Your task to perform on an android device: find which apps use the phone's location Image 0: 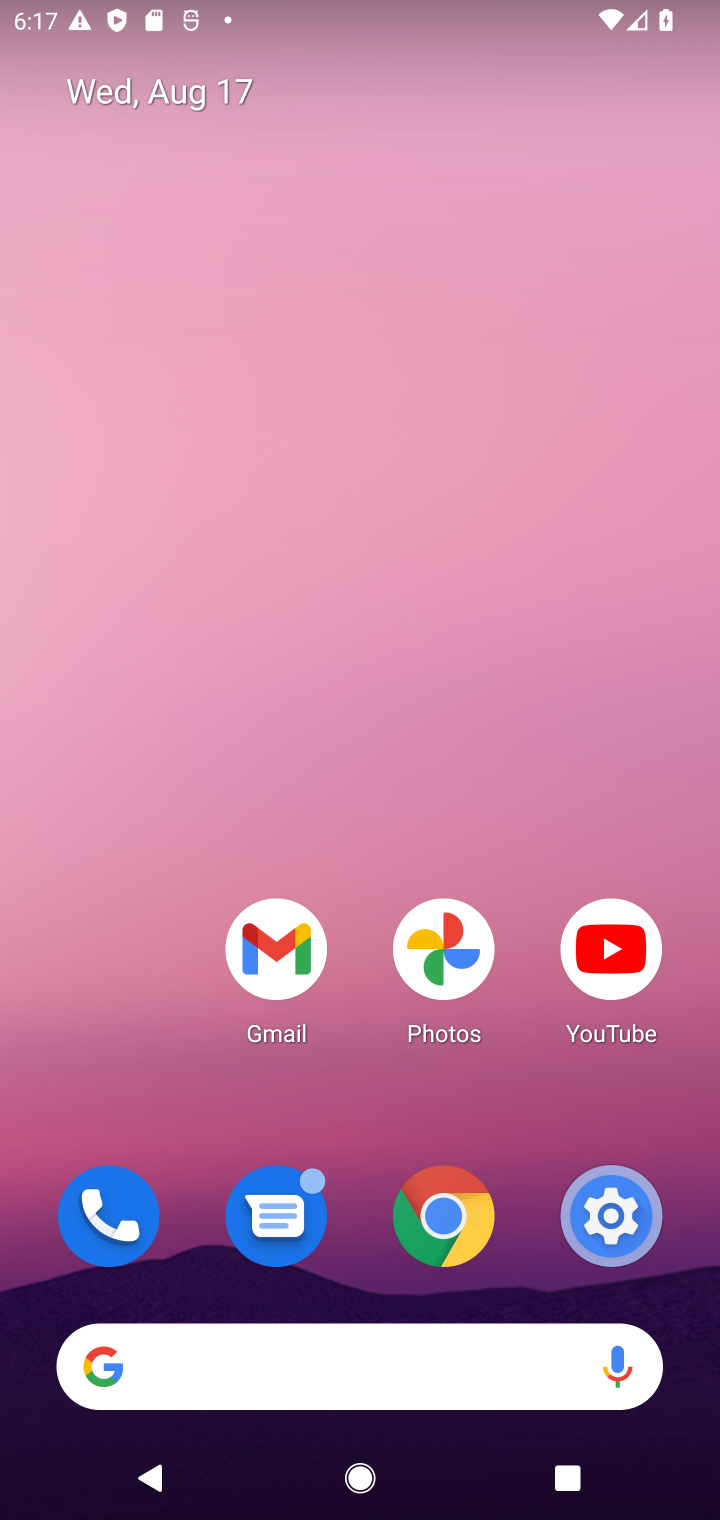
Step 0: drag from (415, 1063) to (411, 18)
Your task to perform on an android device: find which apps use the phone's location Image 1: 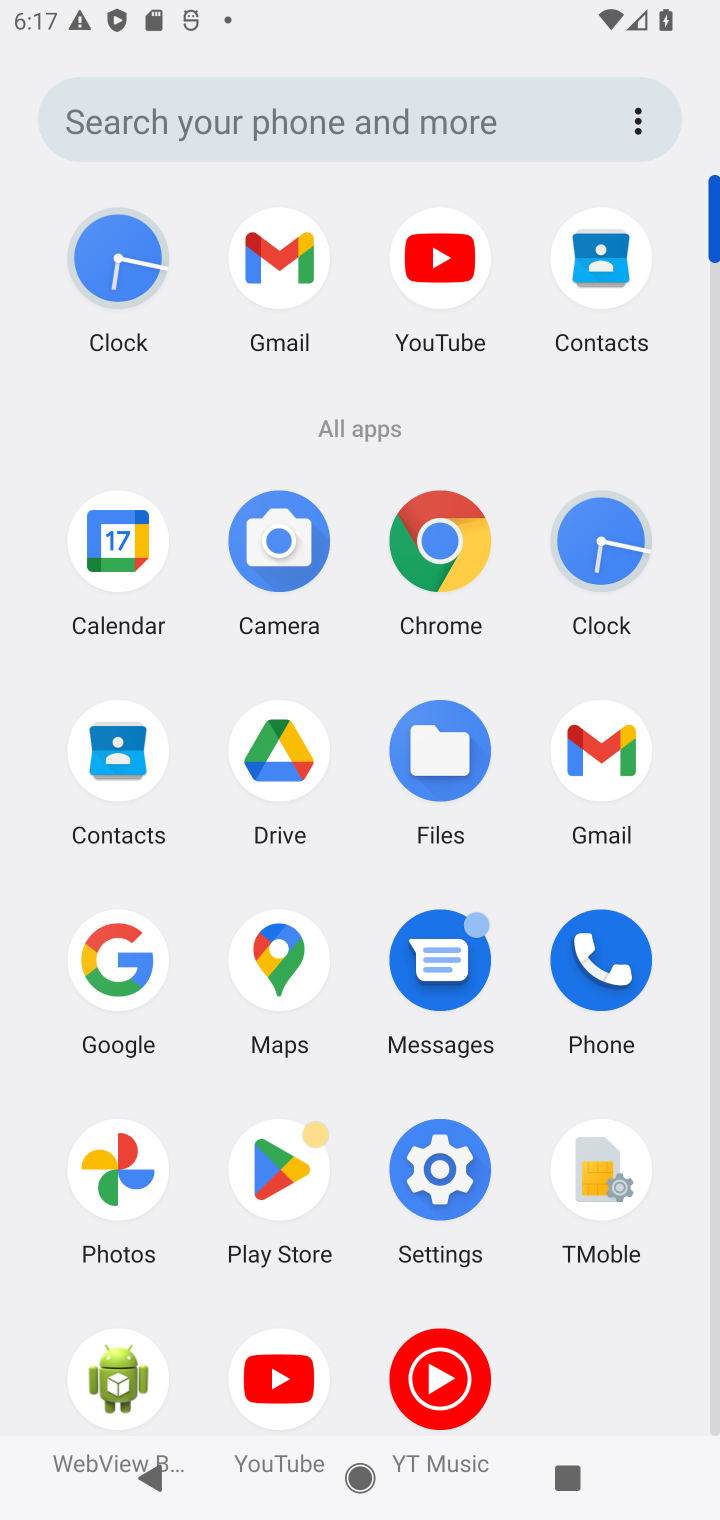
Step 1: click (602, 966)
Your task to perform on an android device: find which apps use the phone's location Image 2: 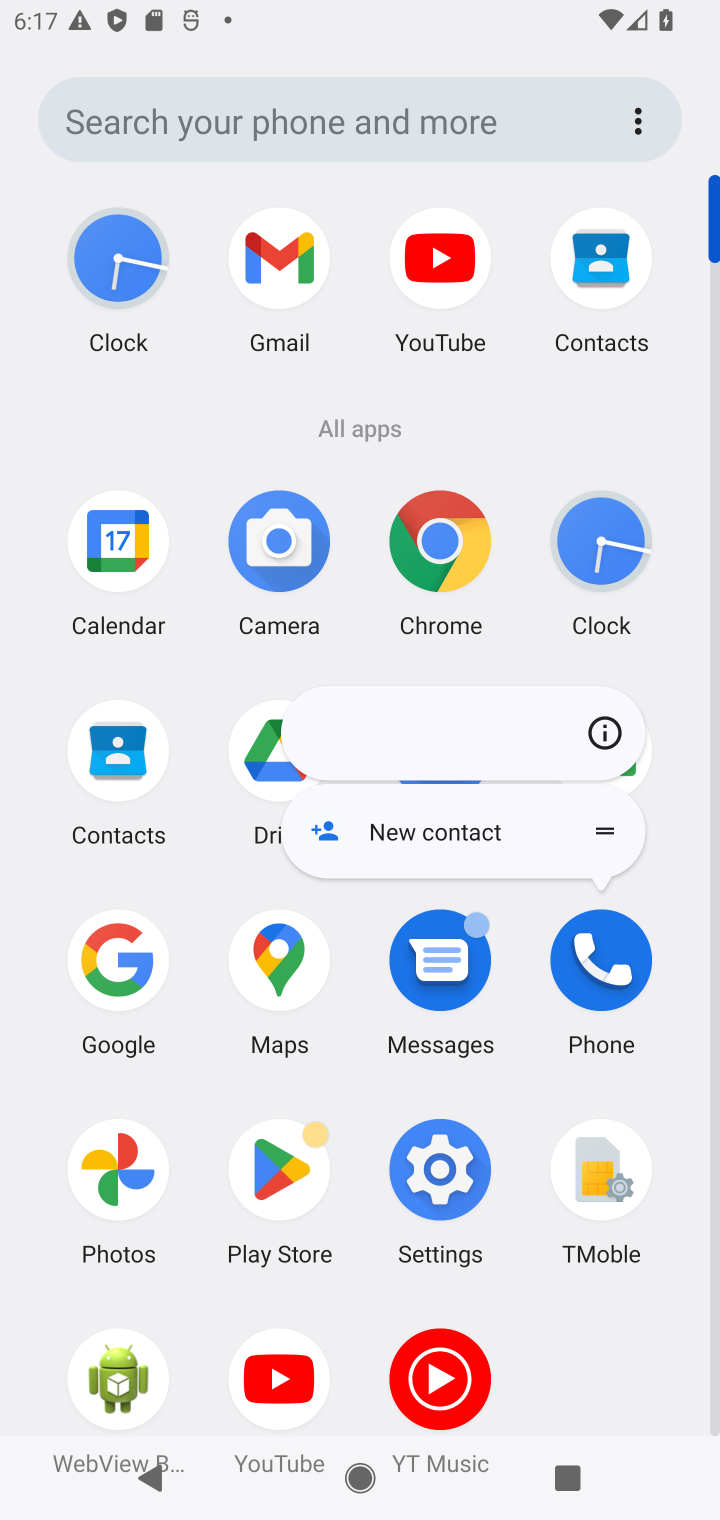
Step 2: click (607, 718)
Your task to perform on an android device: find which apps use the phone's location Image 3: 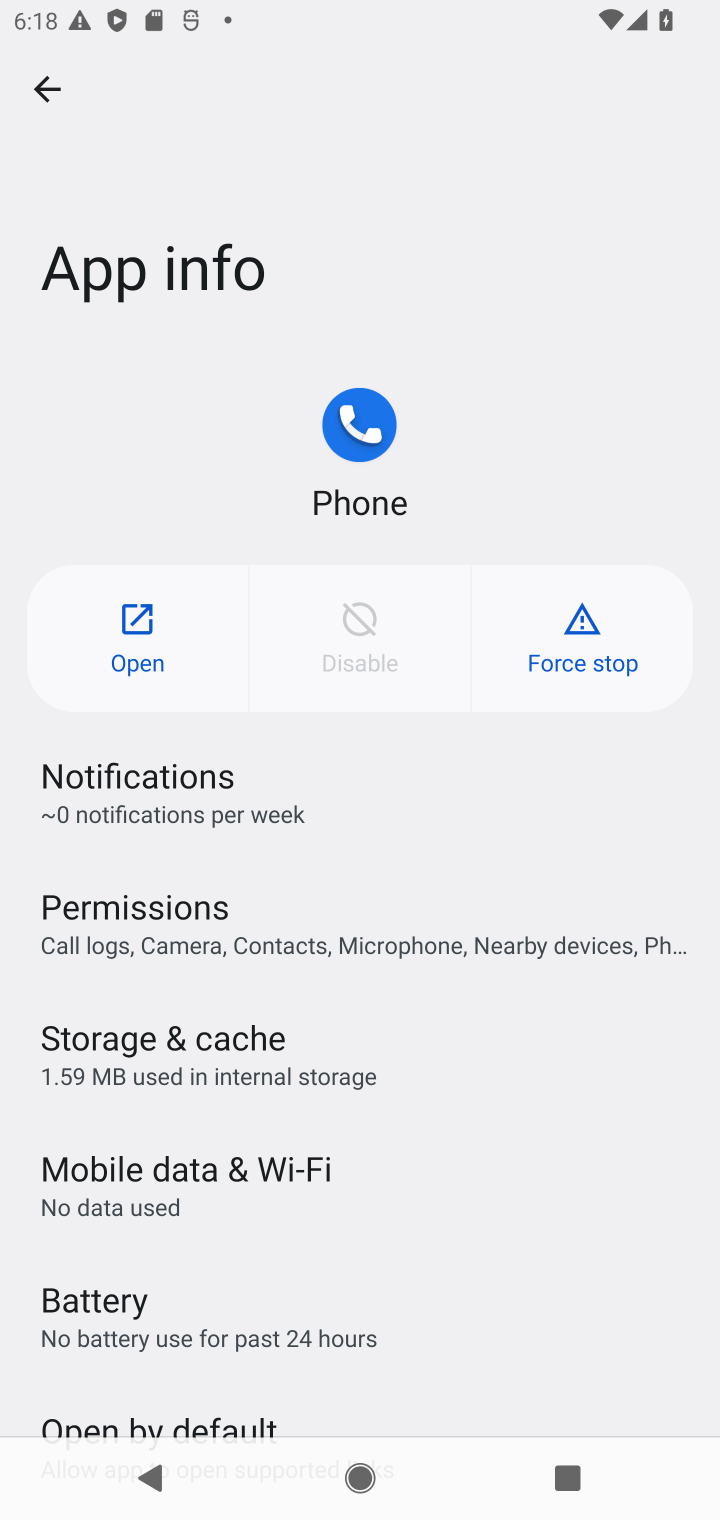
Step 3: drag from (479, 1352) to (583, 343)
Your task to perform on an android device: find which apps use the phone's location Image 4: 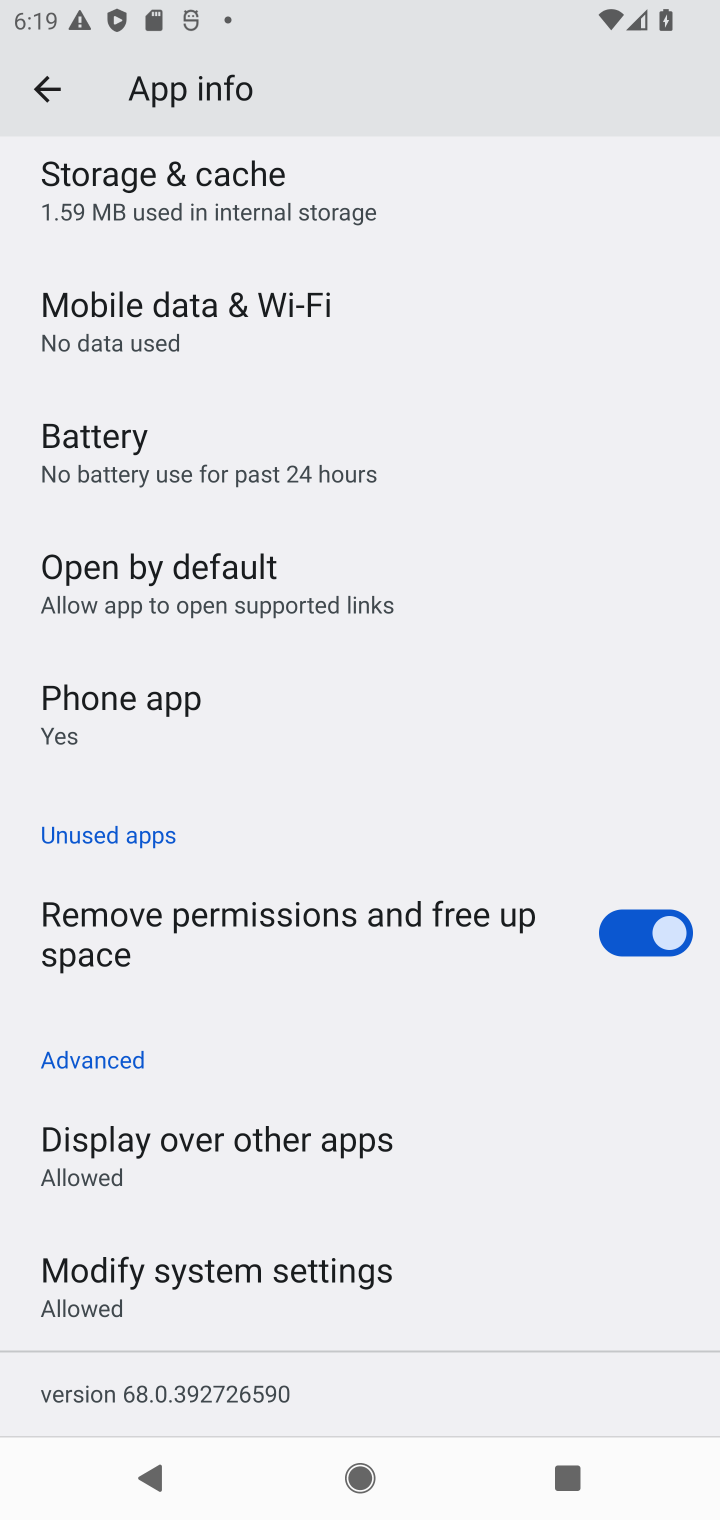
Step 4: drag from (336, 1176) to (282, 183)
Your task to perform on an android device: find which apps use the phone's location Image 5: 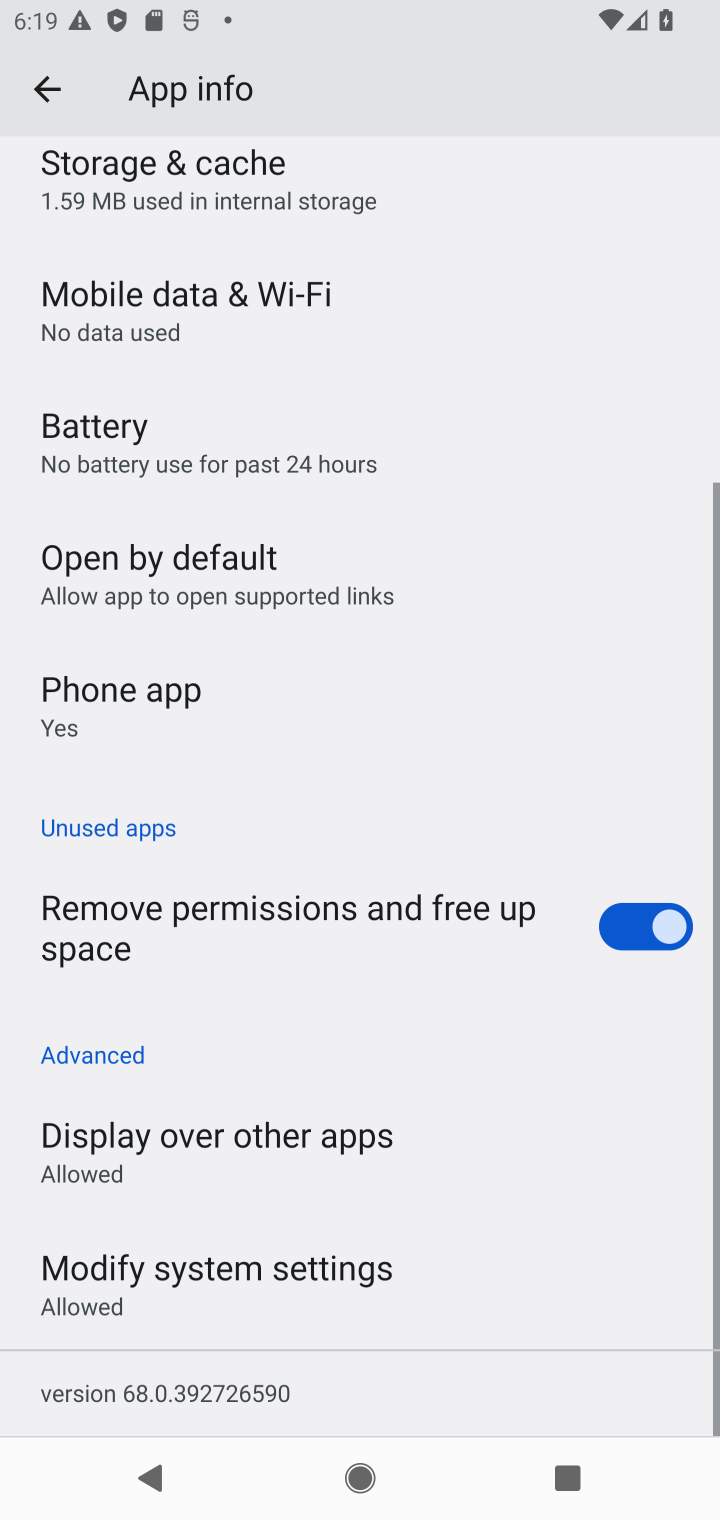
Step 5: drag from (216, 506) to (173, 1316)
Your task to perform on an android device: find which apps use the phone's location Image 6: 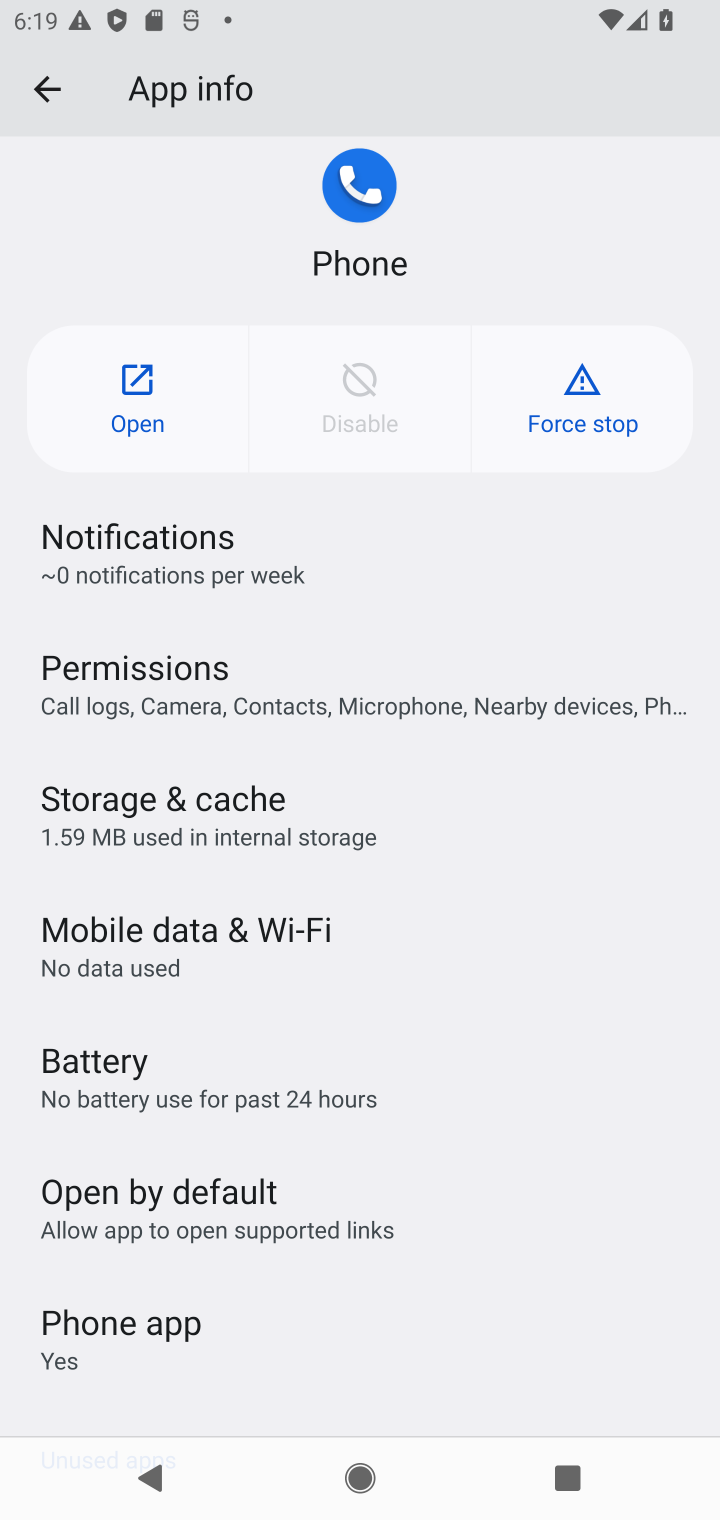
Step 6: click (137, 709)
Your task to perform on an android device: find which apps use the phone's location Image 7: 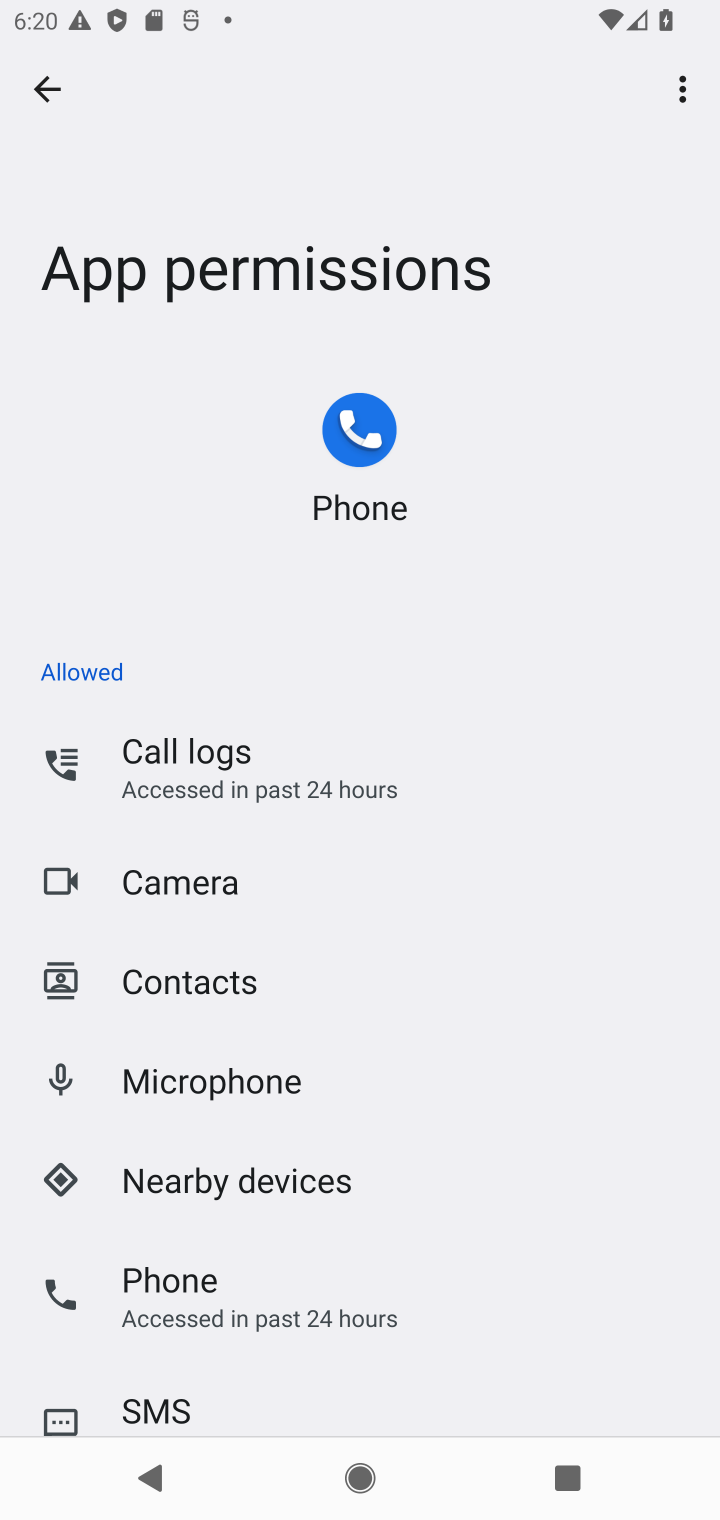
Step 7: drag from (343, 1139) to (398, 752)
Your task to perform on an android device: find which apps use the phone's location Image 8: 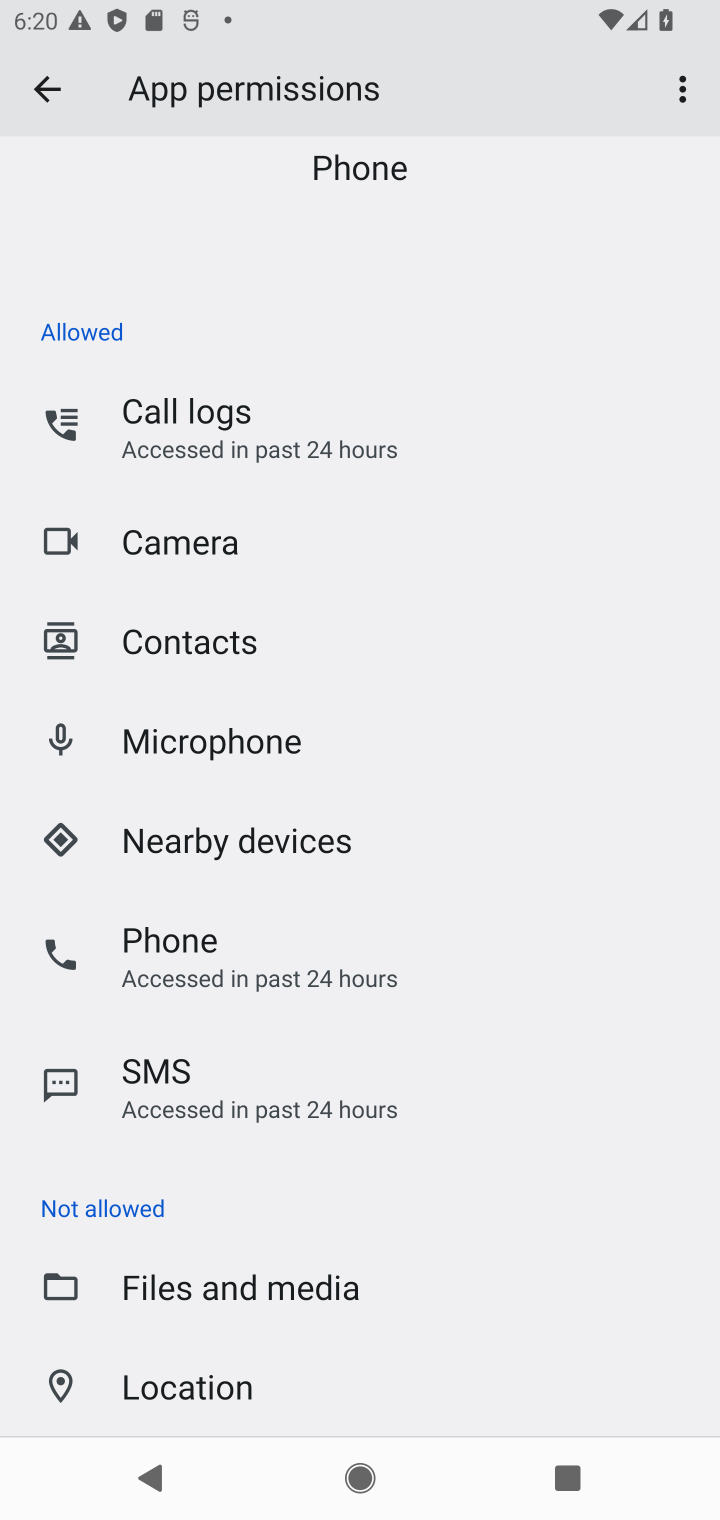
Step 8: drag from (380, 1195) to (337, 351)
Your task to perform on an android device: find which apps use the phone's location Image 9: 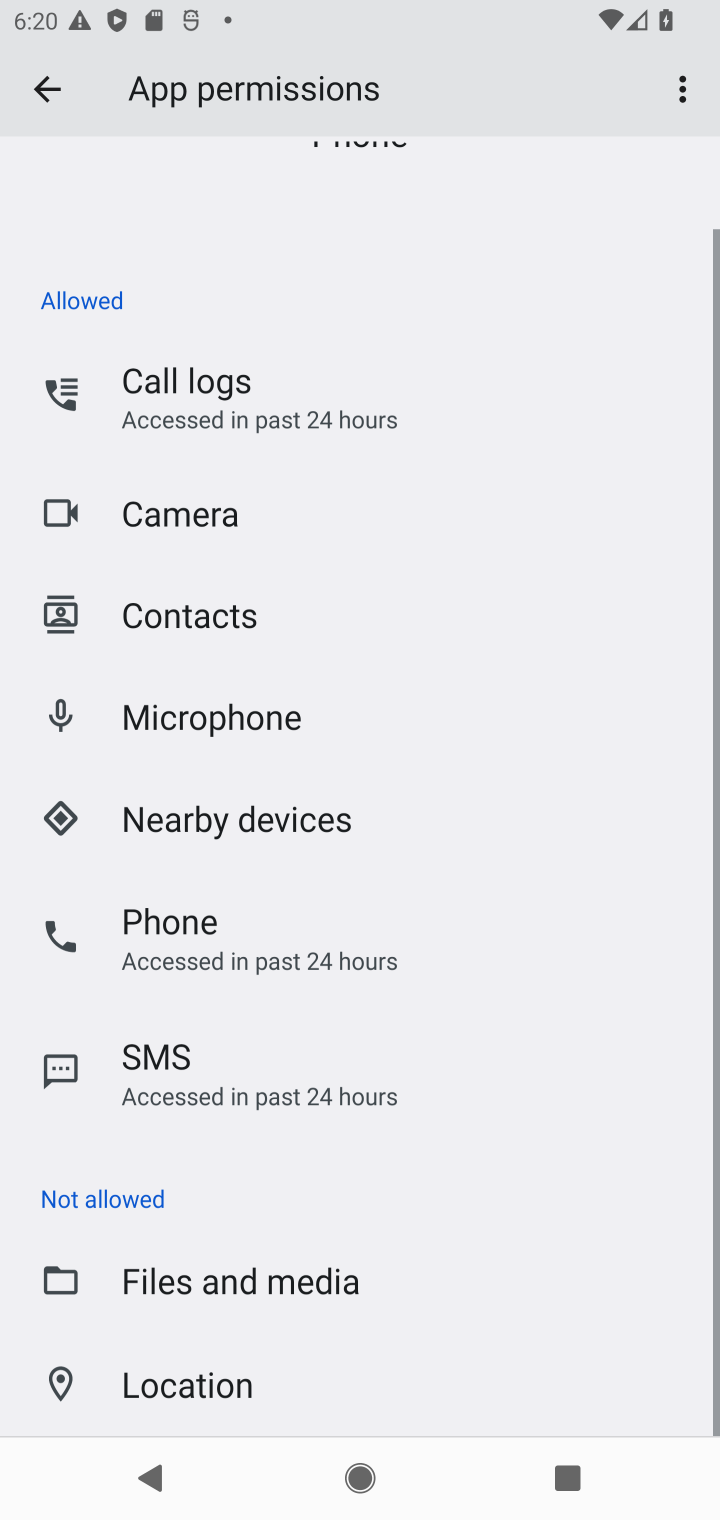
Step 9: click (235, 1386)
Your task to perform on an android device: find which apps use the phone's location Image 10: 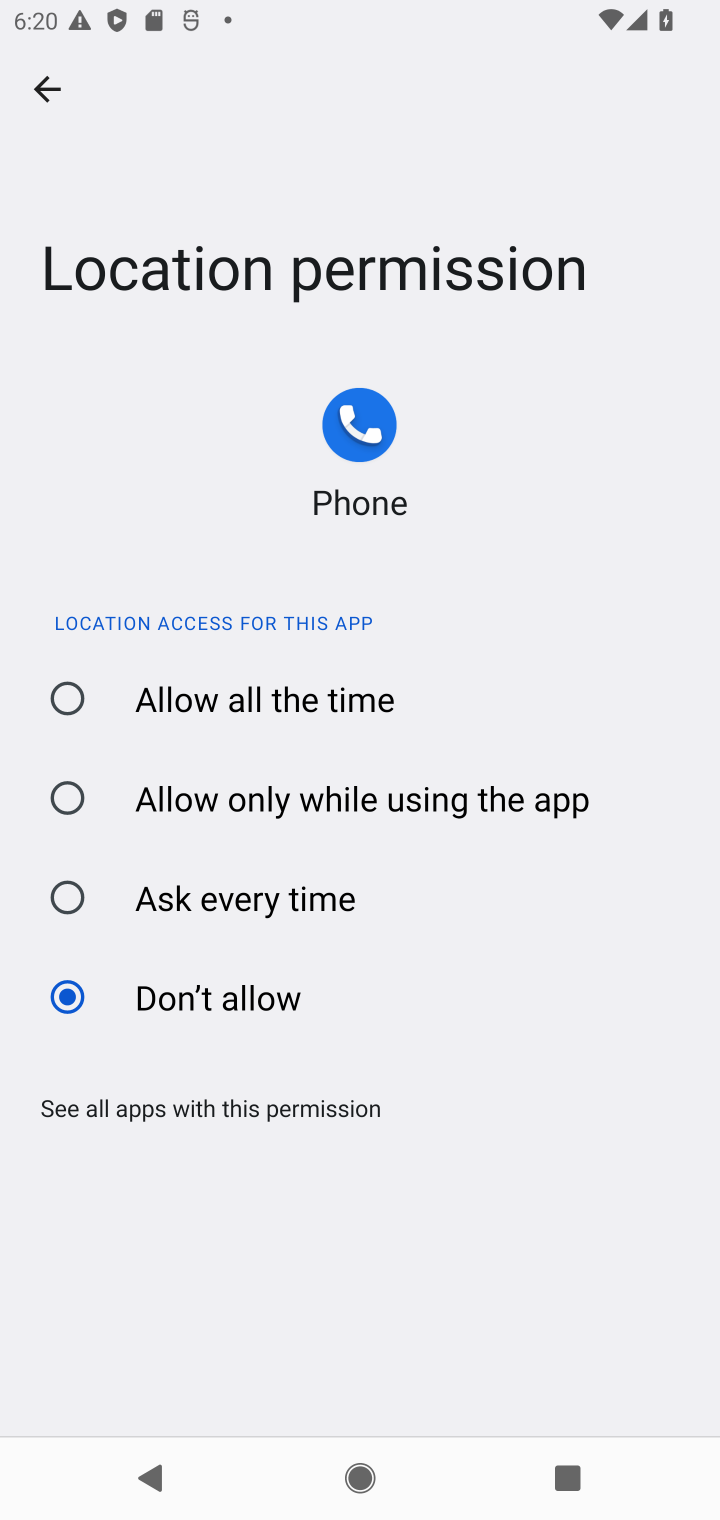
Step 10: task complete